Your task to perform on an android device: Open display settings Image 0: 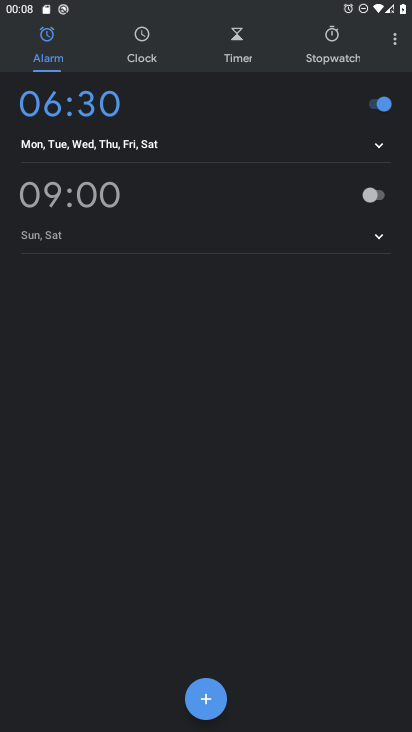
Step 0: press home button
Your task to perform on an android device: Open display settings Image 1: 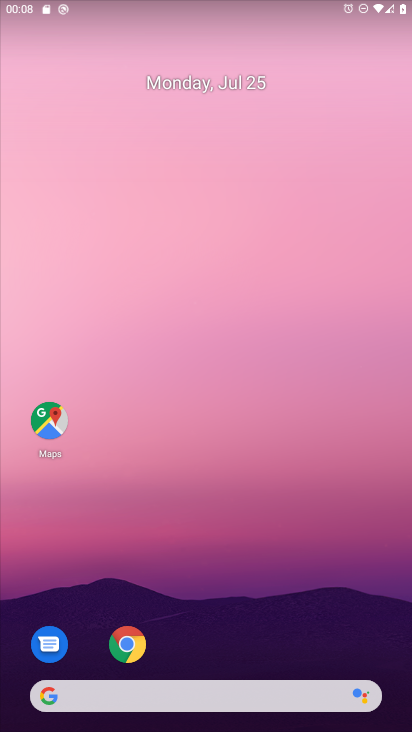
Step 1: drag from (352, 634) to (350, 50)
Your task to perform on an android device: Open display settings Image 2: 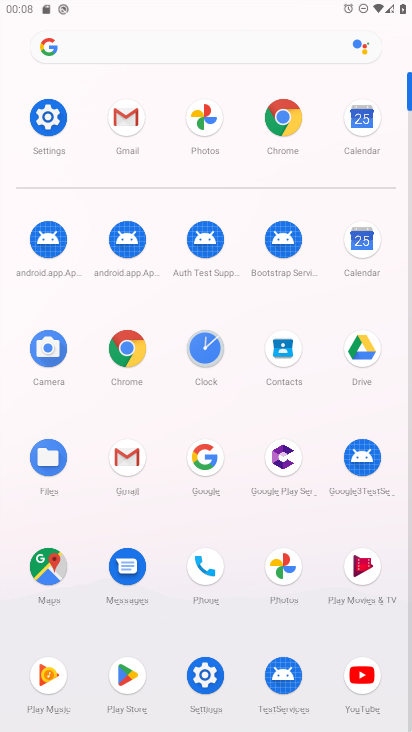
Step 2: click (202, 675)
Your task to perform on an android device: Open display settings Image 3: 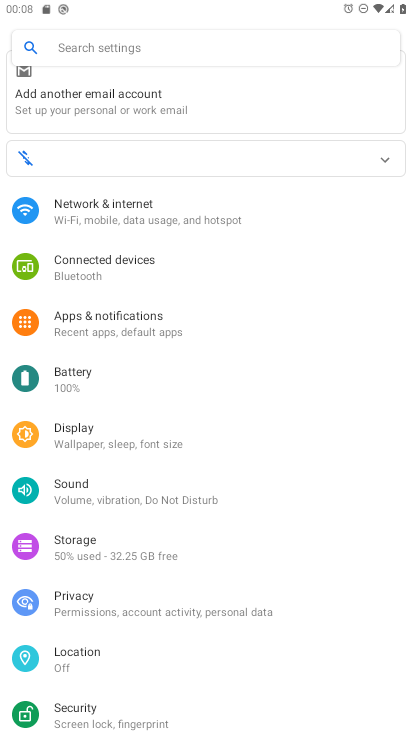
Step 3: click (88, 441)
Your task to perform on an android device: Open display settings Image 4: 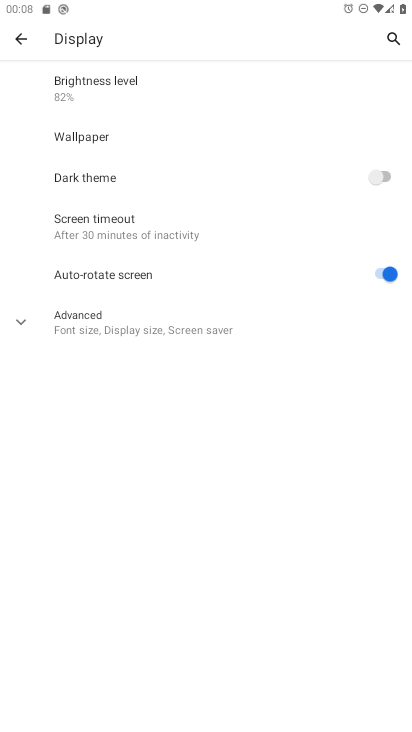
Step 4: click (21, 322)
Your task to perform on an android device: Open display settings Image 5: 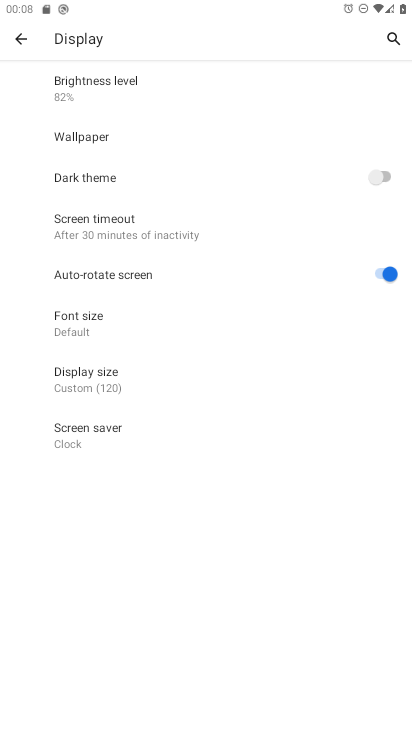
Step 5: task complete